Your task to perform on an android device: Open Wikipedia Image 0: 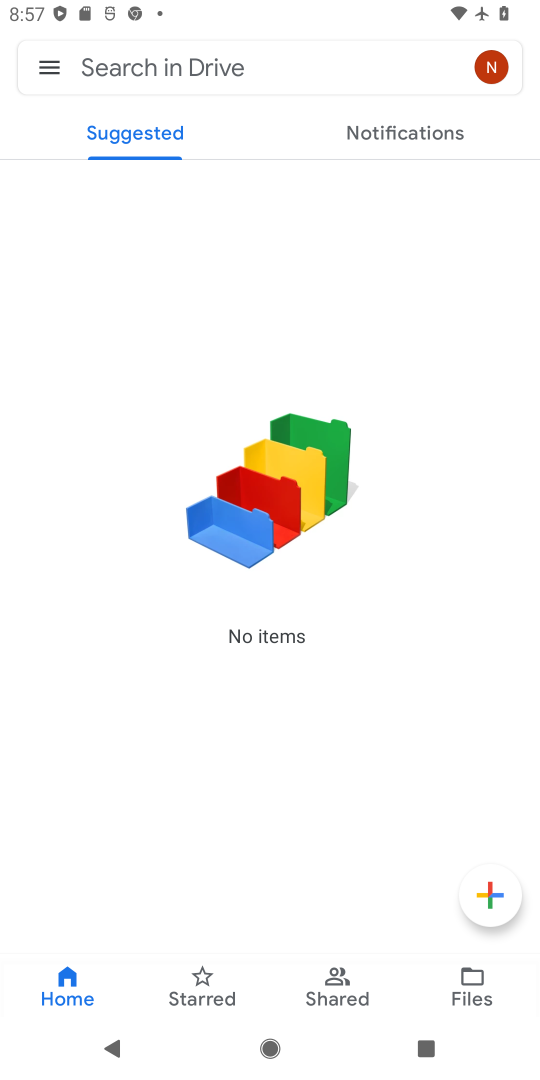
Step 0: press home button
Your task to perform on an android device: Open Wikipedia Image 1: 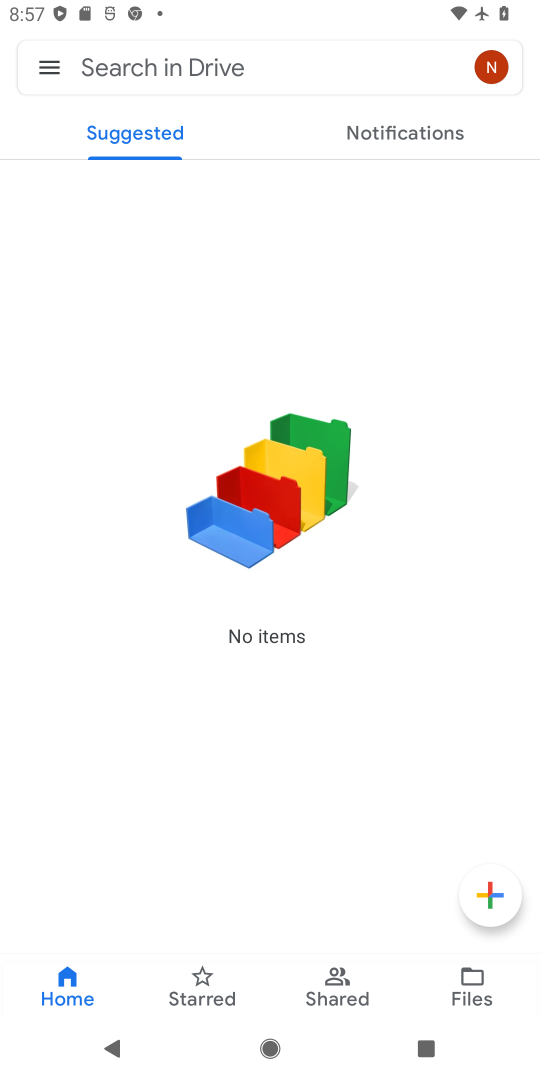
Step 1: press home button
Your task to perform on an android device: Open Wikipedia Image 2: 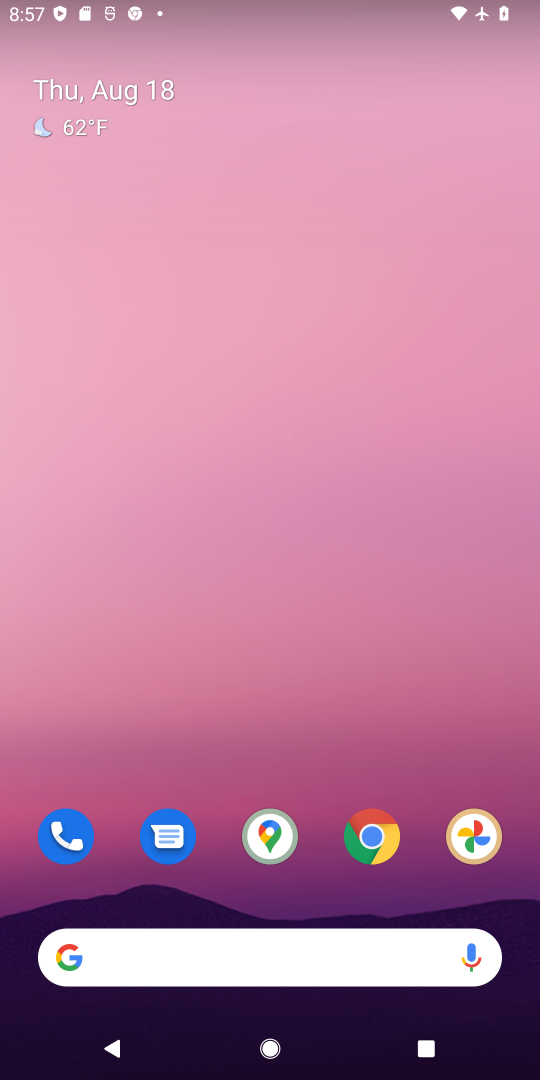
Step 2: drag from (311, 901) to (382, 46)
Your task to perform on an android device: Open Wikipedia Image 3: 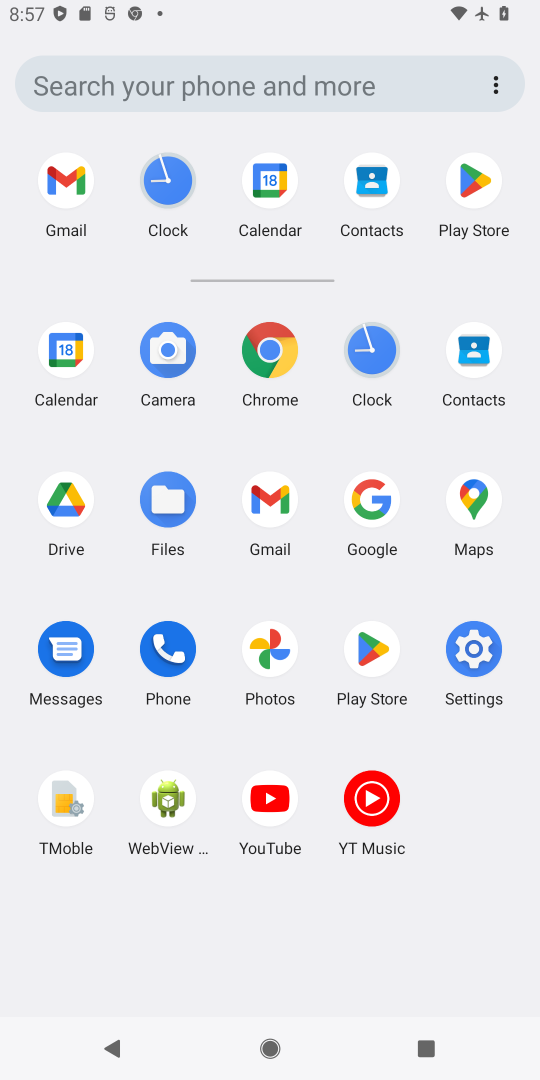
Step 3: click (265, 360)
Your task to perform on an android device: Open Wikipedia Image 4: 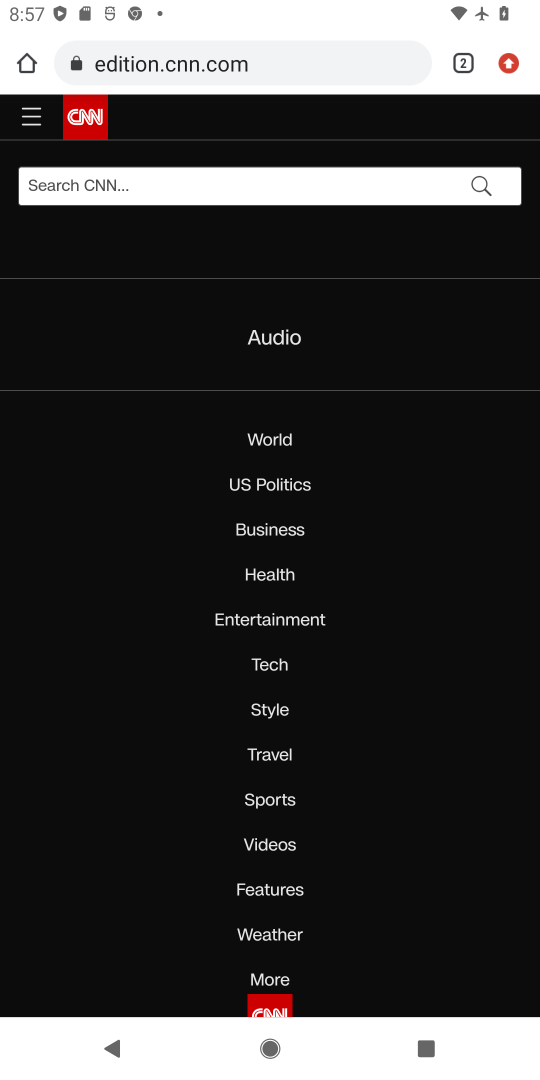
Step 4: click (305, 66)
Your task to perform on an android device: Open Wikipedia Image 5: 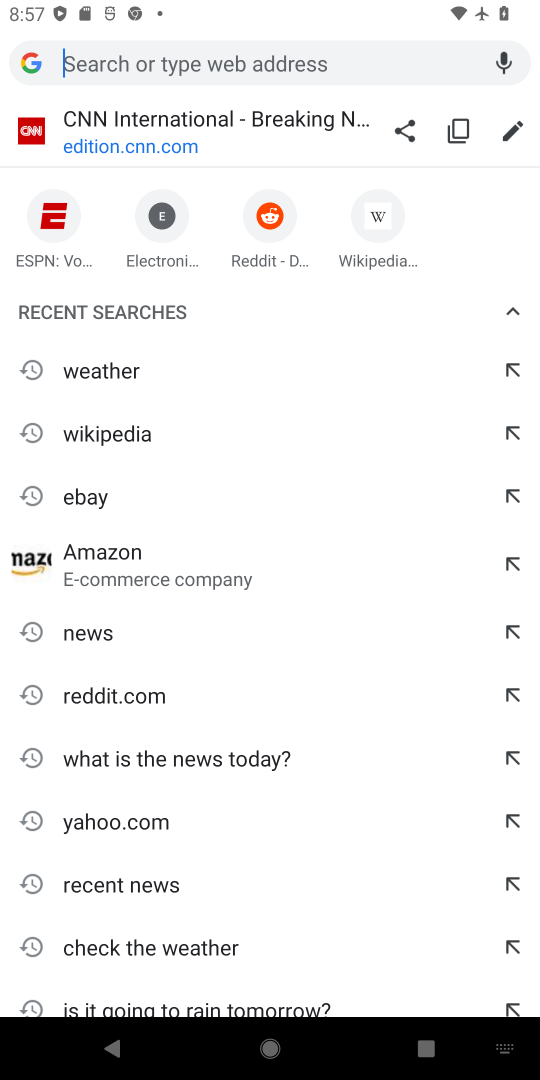
Step 5: click (113, 422)
Your task to perform on an android device: Open Wikipedia Image 6: 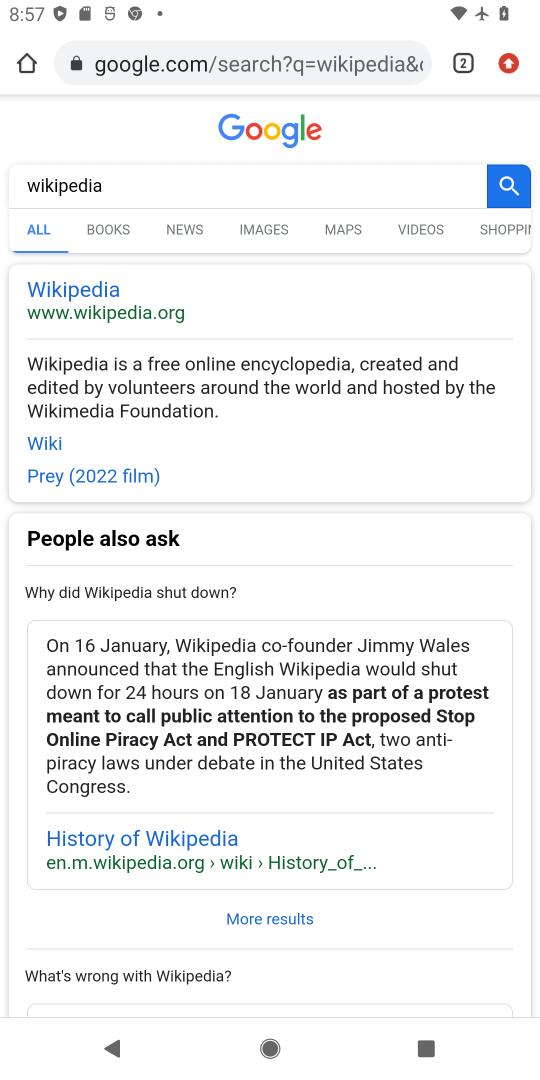
Step 6: click (107, 287)
Your task to perform on an android device: Open Wikipedia Image 7: 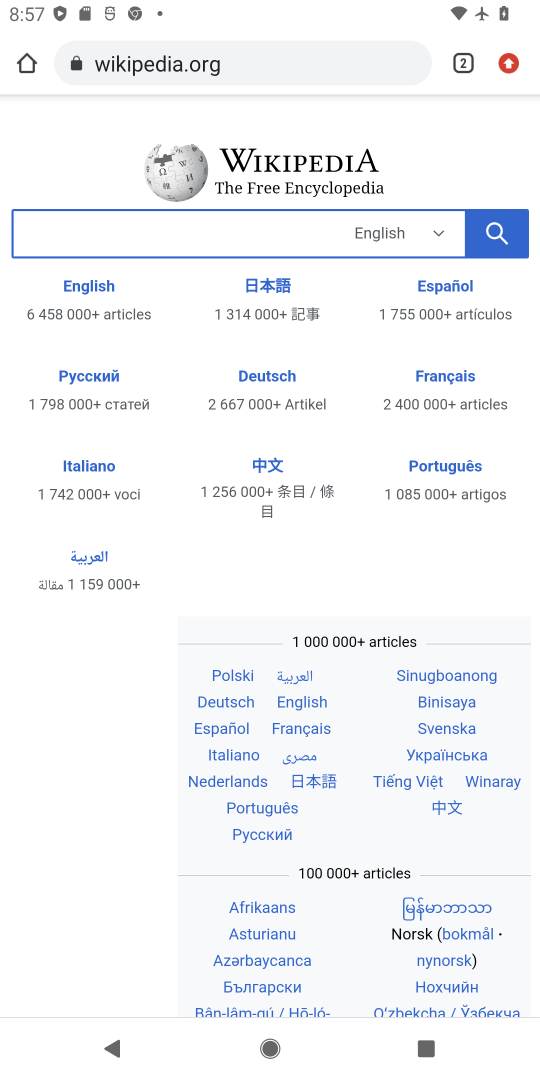
Step 7: task complete